Your task to perform on an android device: turn on sleep mode Image 0: 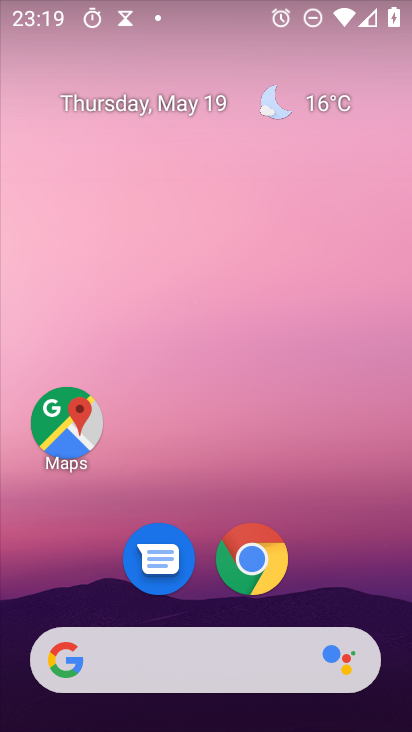
Step 0: drag from (224, 723) to (206, 181)
Your task to perform on an android device: turn on sleep mode Image 1: 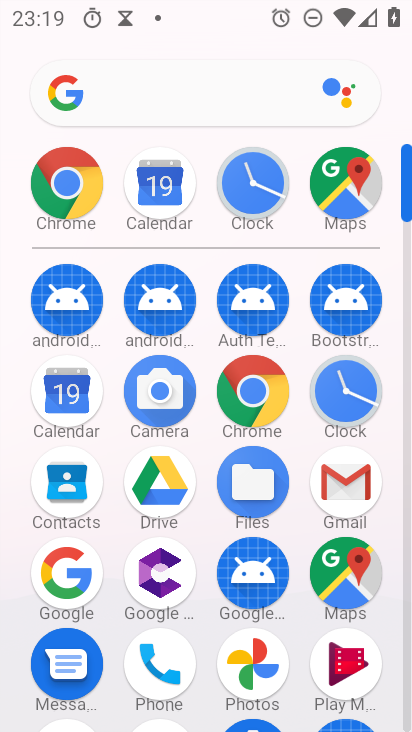
Step 1: drag from (206, 637) to (215, 252)
Your task to perform on an android device: turn on sleep mode Image 2: 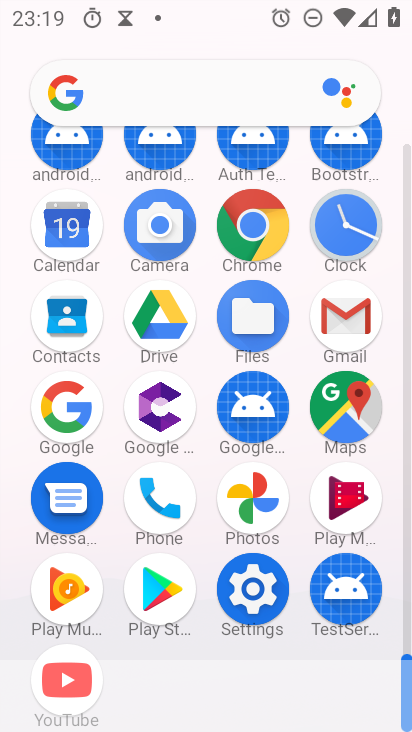
Step 2: click (263, 583)
Your task to perform on an android device: turn on sleep mode Image 3: 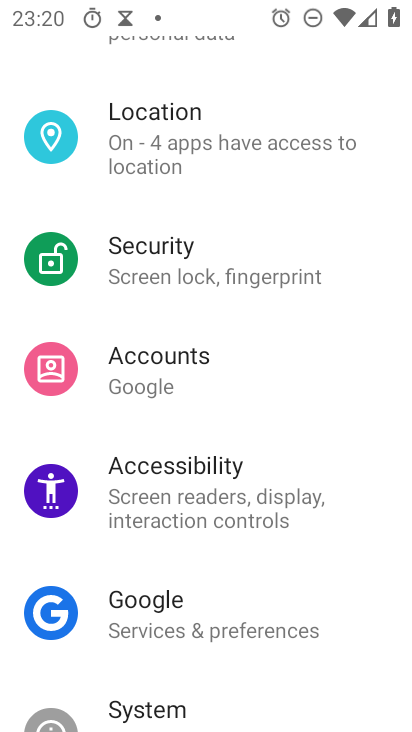
Step 3: drag from (231, 233) to (234, 594)
Your task to perform on an android device: turn on sleep mode Image 4: 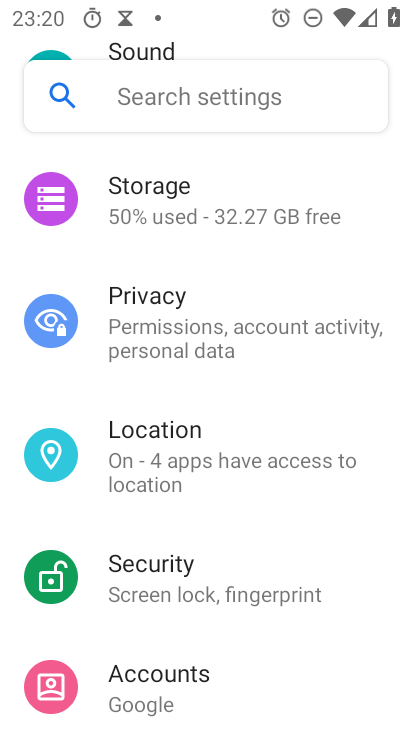
Step 4: drag from (251, 183) to (234, 628)
Your task to perform on an android device: turn on sleep mode Image 5: 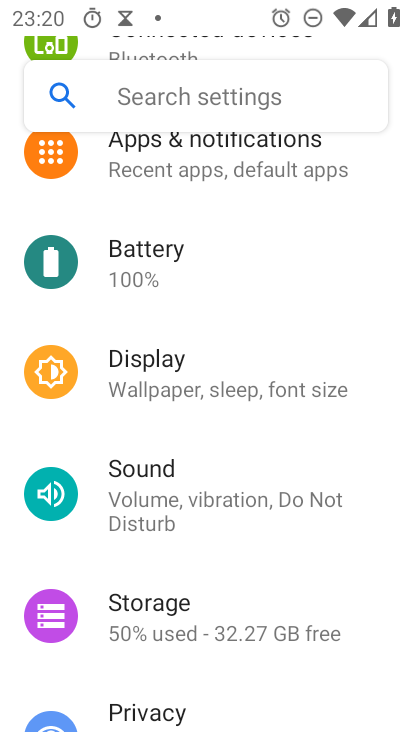
Step 5: drag from (250, 222) to (246, 617)
Your task to perform on an android device: turn on sleep mode Image 6: 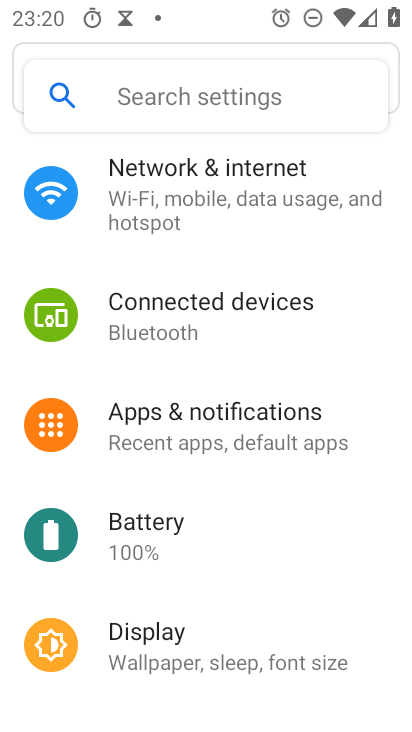
Step 6: drag from (266, 261) to (285, 572)
Your task to perform on an android device: turn on sleep mode Image 7: 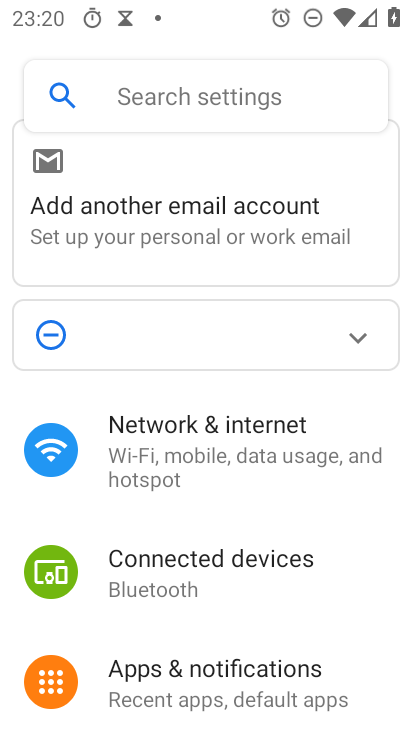
Step 7: drag from (252, 661) to (254, 238)
Your task to perform on an android device: turn on sleep mode Image 8: 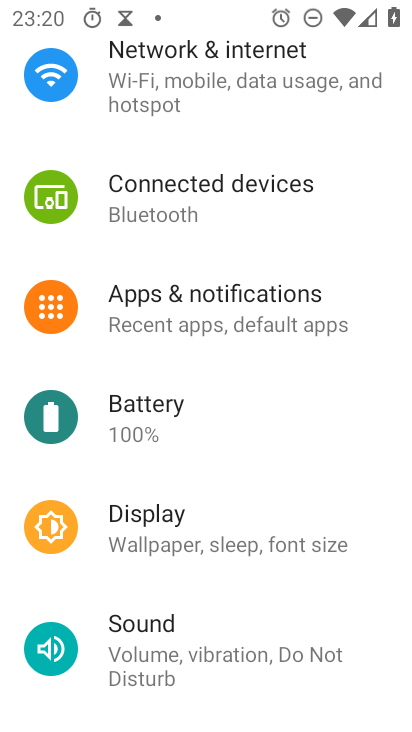
Step 8: drag from (231, 675) to (241, 381)
Your task to perform on an android device: turn on sleep mode Image 9: 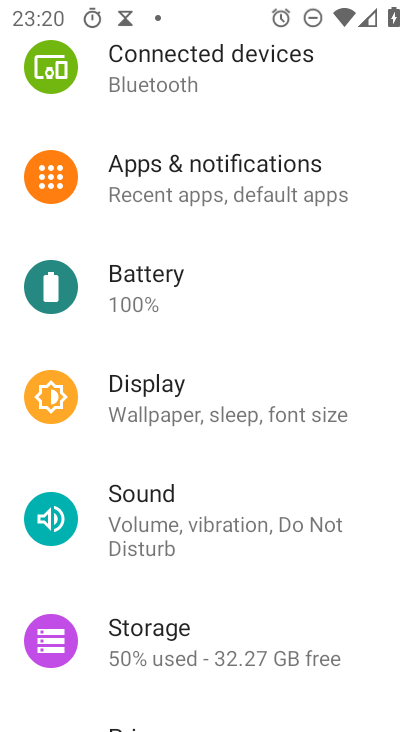
Step 9: click (180, 402)
Your task to perform on an android device: turn on sleep mode Image 10: 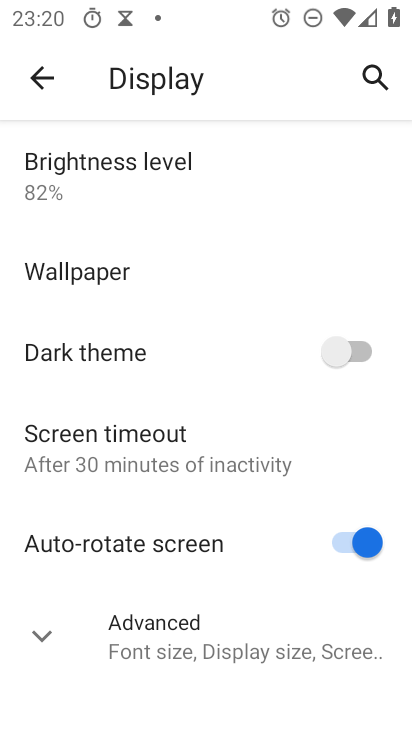
Step 10: click (43, 78)
Your task to perform on an android device: turn on sleep mode Image 11: 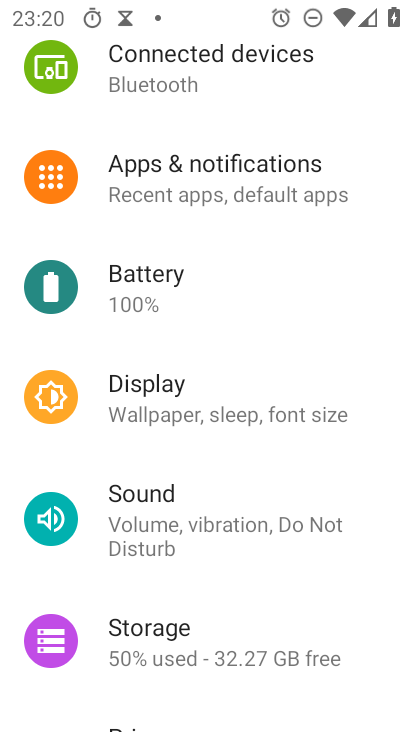
Step 11: task complete